Your task to perform on an android device: move an email to a new category in the gmail app Image 0: 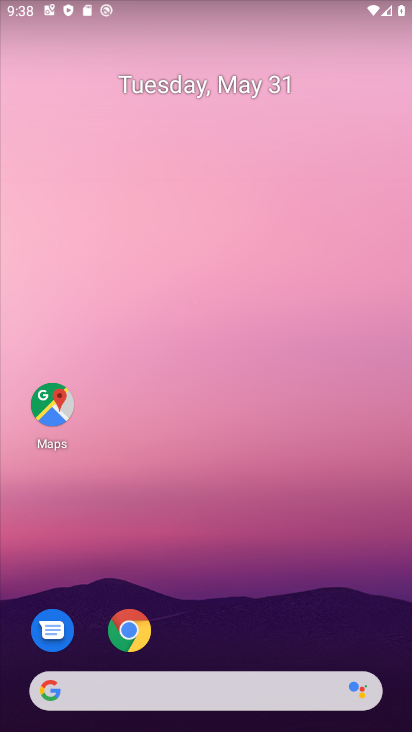
Step 0: drag from (208, 687) to (195, 87)
Your task to perform on an android device: move an email to a new category in the gmail app Image 1: 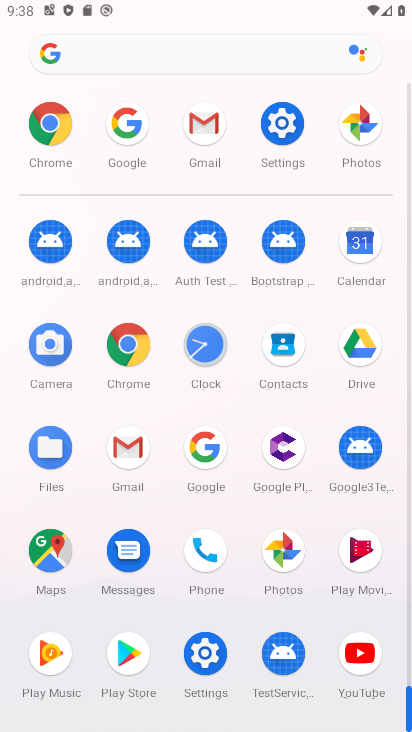
Step 1: click (130, 461)
Your task to perform on an android device: move an email to a new category in the gmail app Image 2: 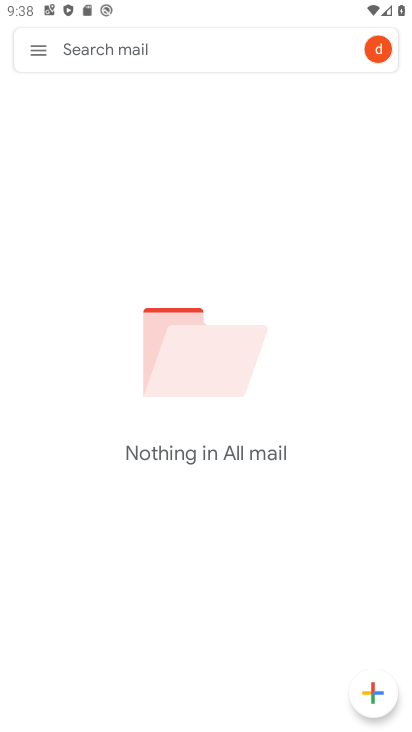
Step 2: task complete